Your task to perform on an android device: Add "razer blade" to the cart on target.com Image 0: 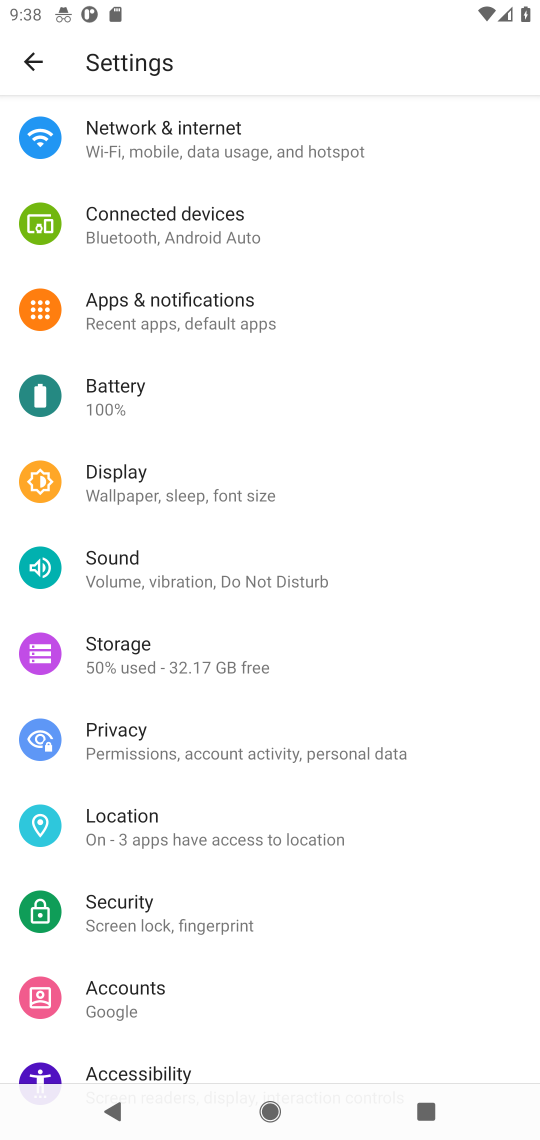
Step 0: press home button
Your task to perform on an android device: Add "razer blade" to the cart on target.com Image 1: 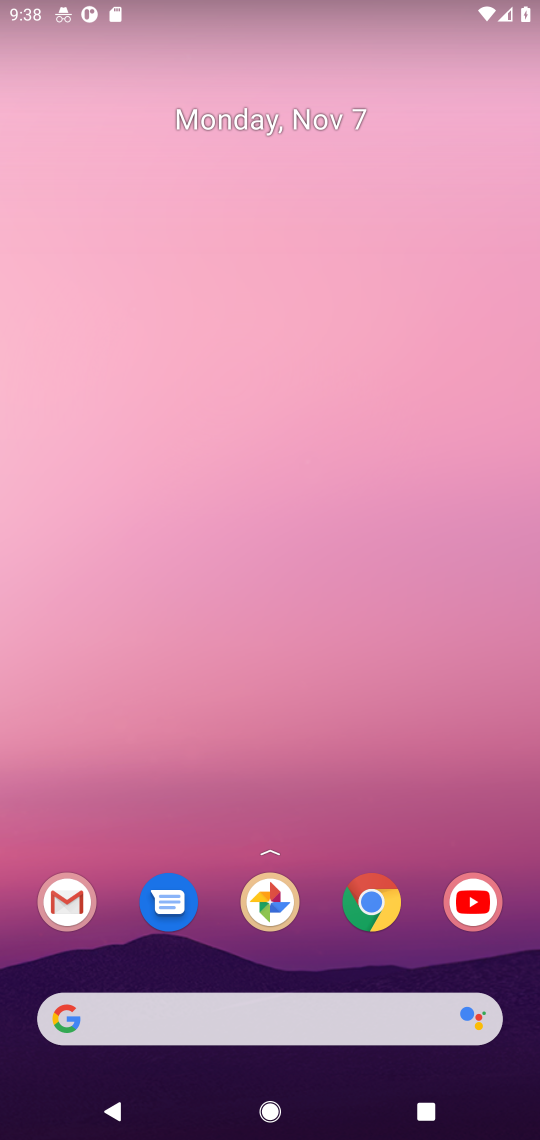
Step 1: click (385, 901)
Your task to perform on an android device: Add "razer blade" to the cart on target.com Image 2: 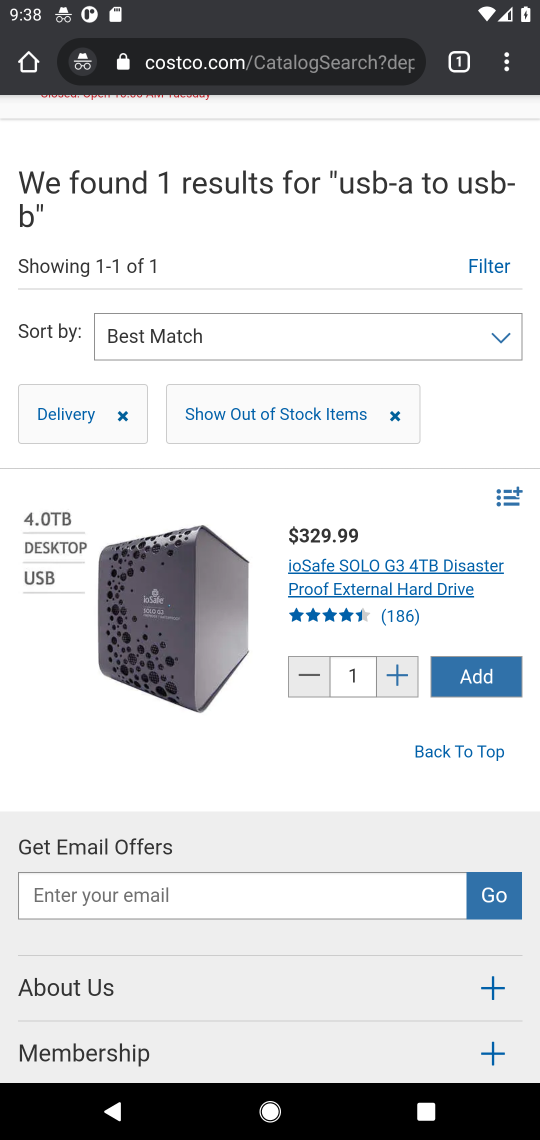
Step 2: click (284, 62)
Your task to perform on an android device: Add "razer blade" to the cart on target.com Image 3: 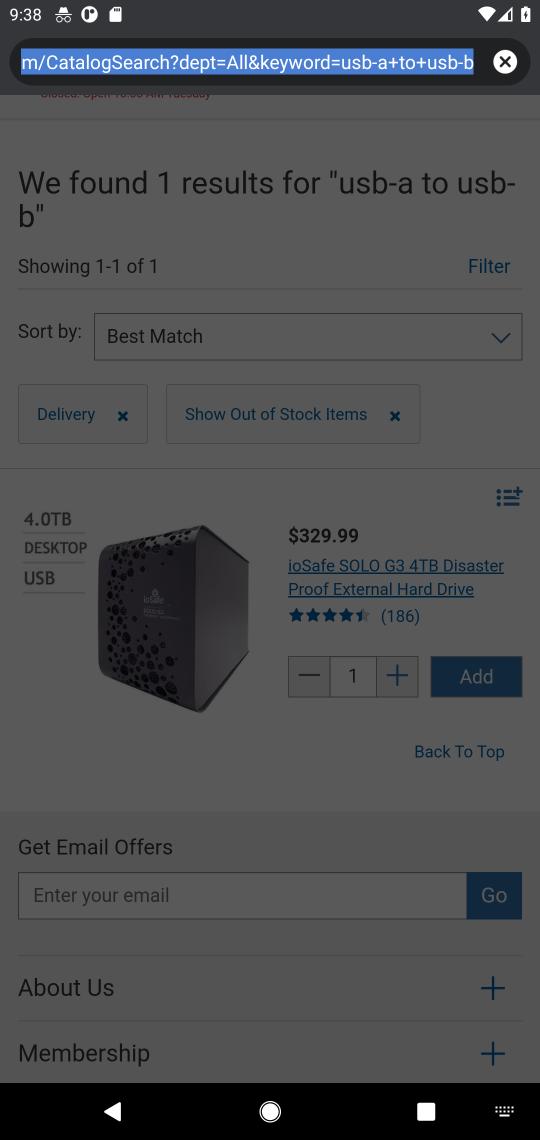
Step 3: click (502, 62)
Your task to perform on an android device: Add "razer blade" to the cart on target.com Image 4: 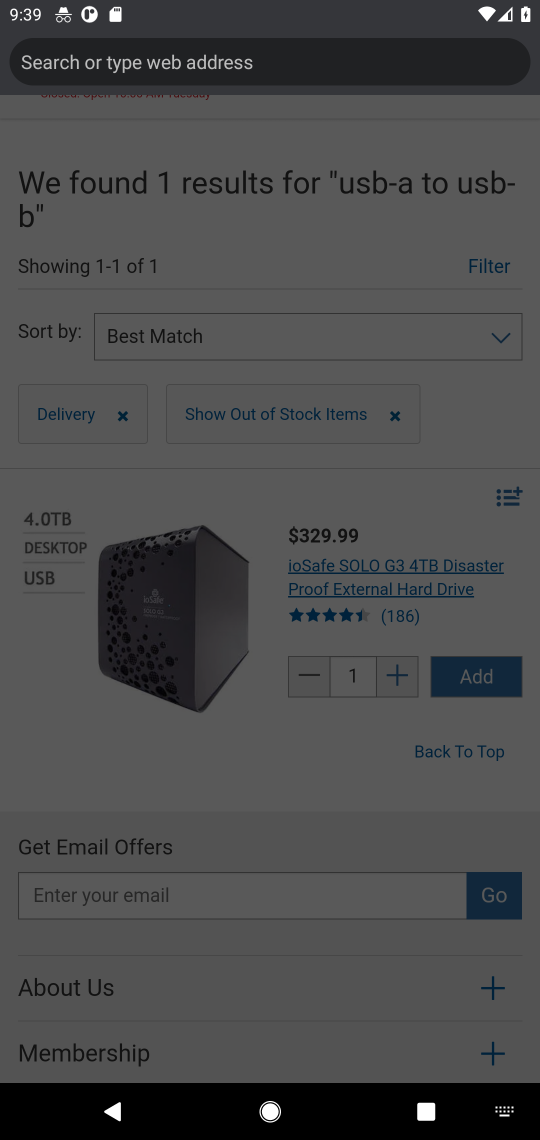
Step 4: type "target.com"
Your task to perform on an android device: Add "razer blade" to the cart on target.com Image 5: 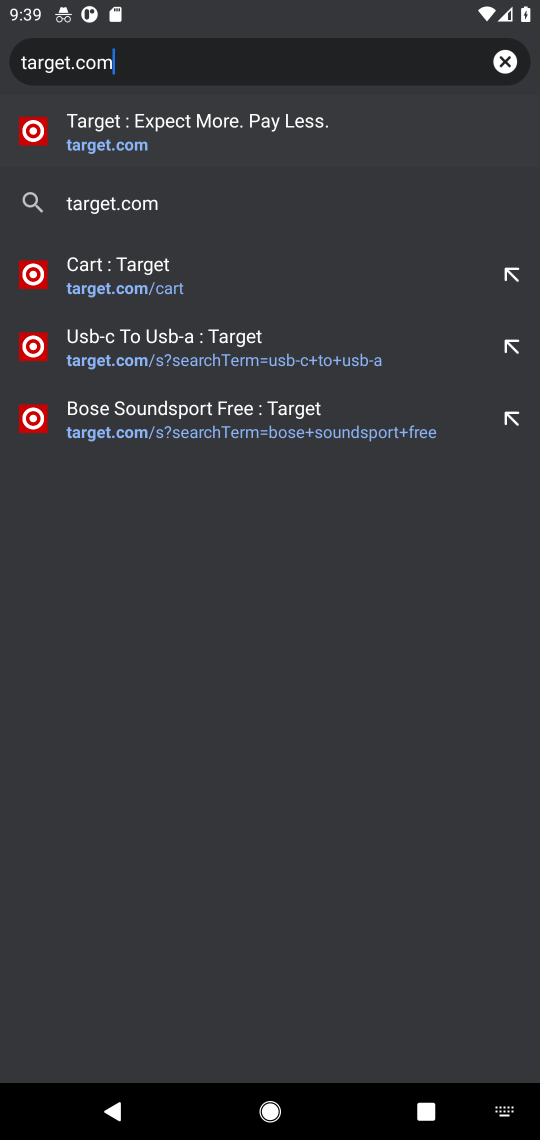
Step 5: click (91, 140)
Your task to perform on an android device: Add "razer blade" to the cart on target.com Image 6: 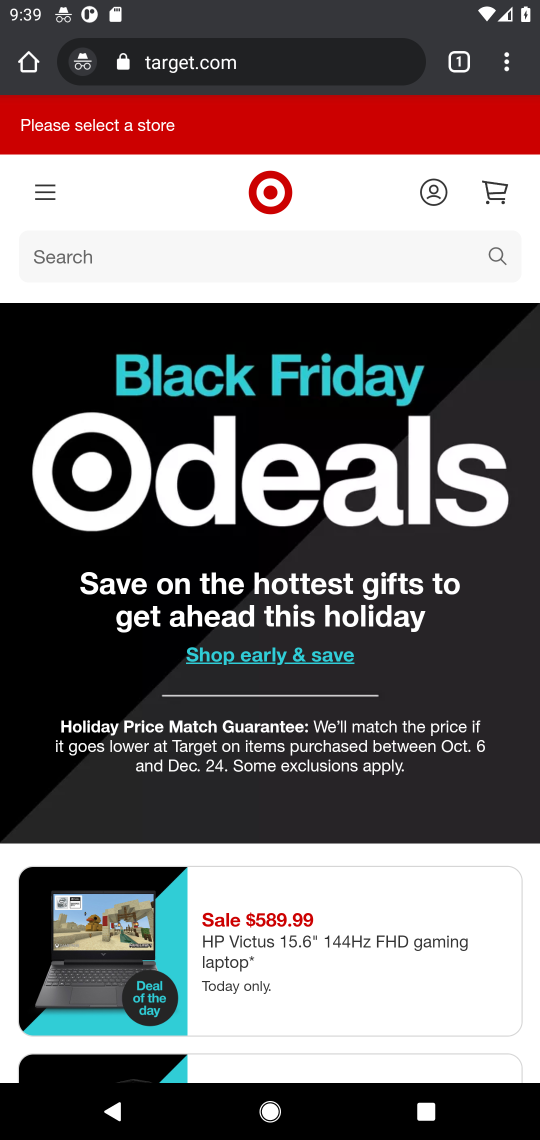
Step 6: click (502, 257)
Your task to perform on an android device: Add "razer blade" to the cart on target.com Image 7: 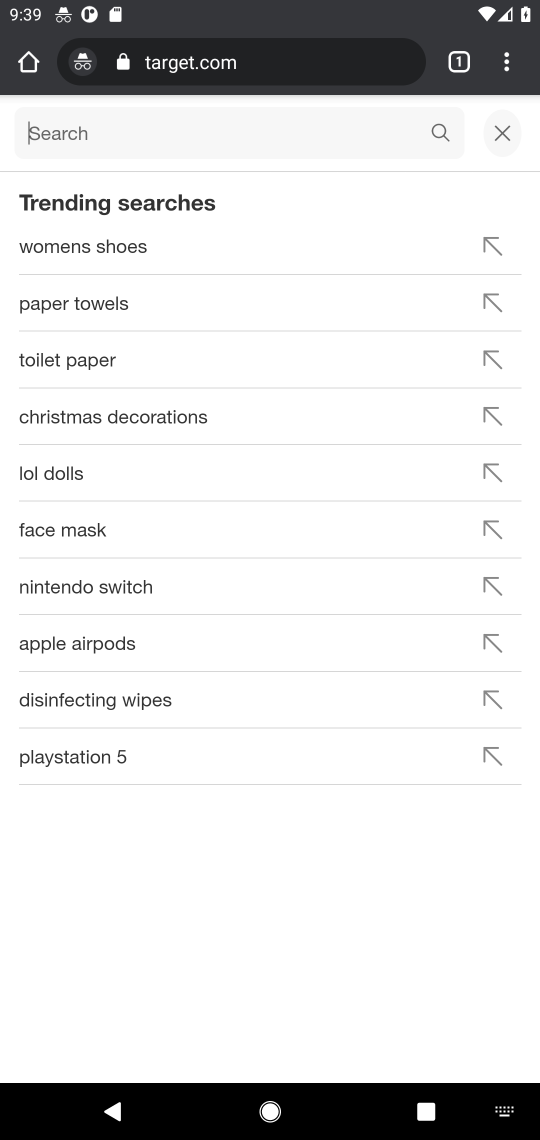
Step 7: type "razer blade"
Your task to perform on an android device: Add "razer blade" to the cart on target.com Image 8: 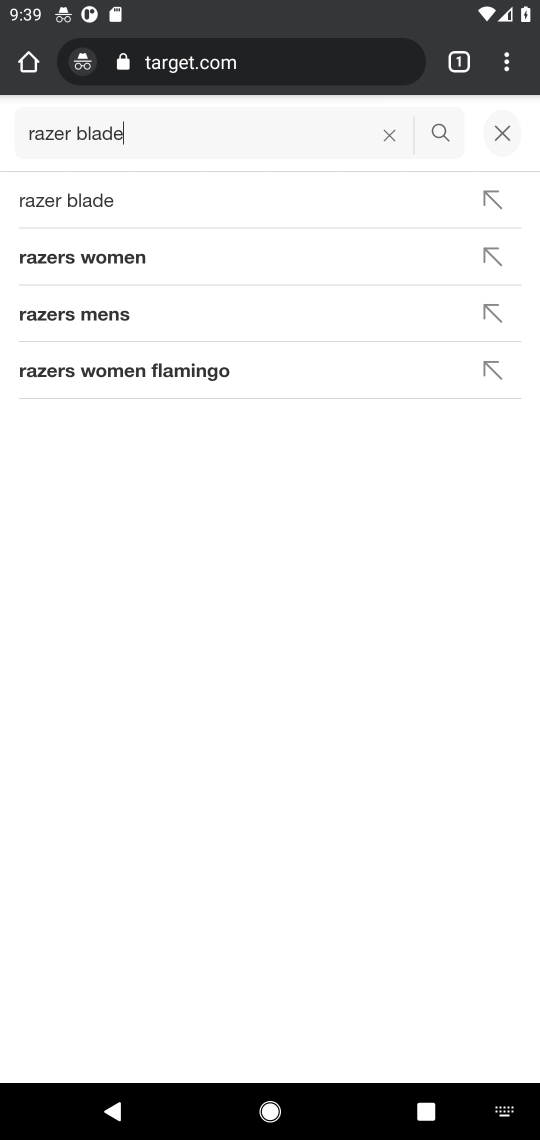
Step 8: click (101, 204)
Your task to perform on an android device: Add "razer blade" to the cart on target.com Image 9: 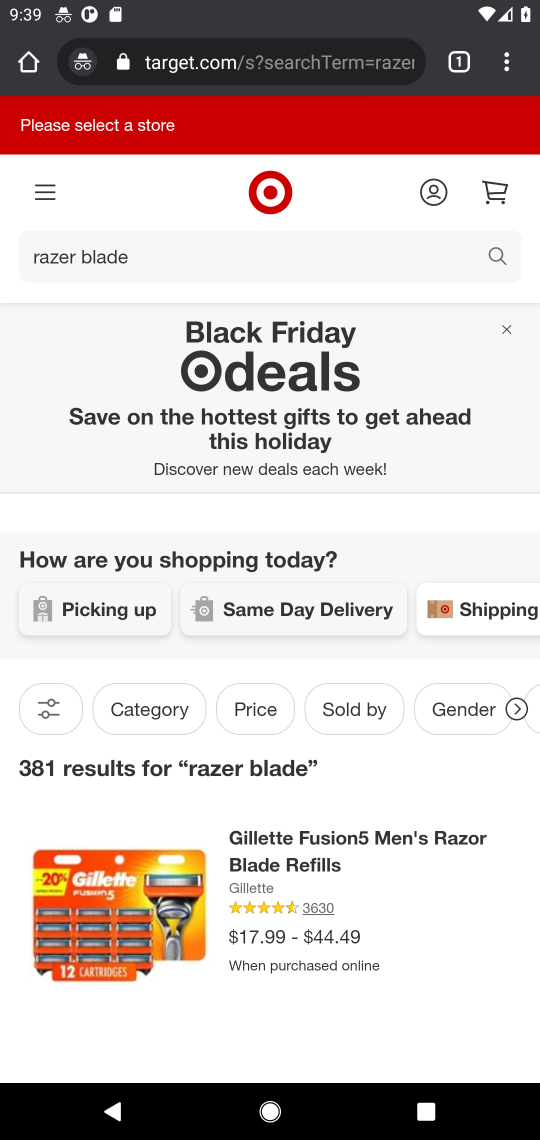
Step 9: click (134, 935)
Your task to perform on an android device: Add "razer blade" to the cart on target.com Image 10: 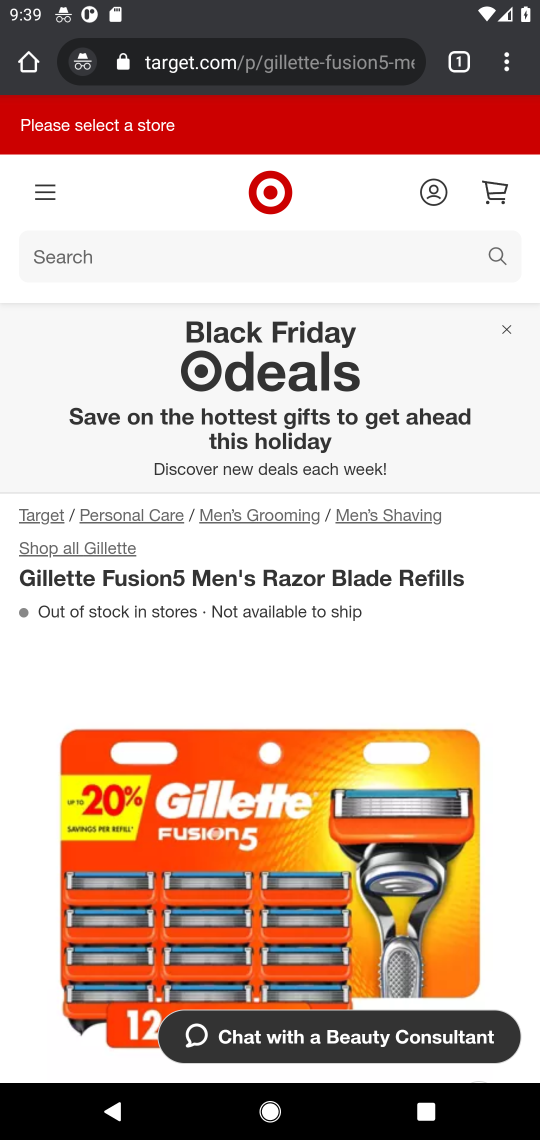
Step 10: drag from (234, 918) to (253, 435)
Your task to perform on an android device: Add "razer blade" to the cart on target.com Image 11: 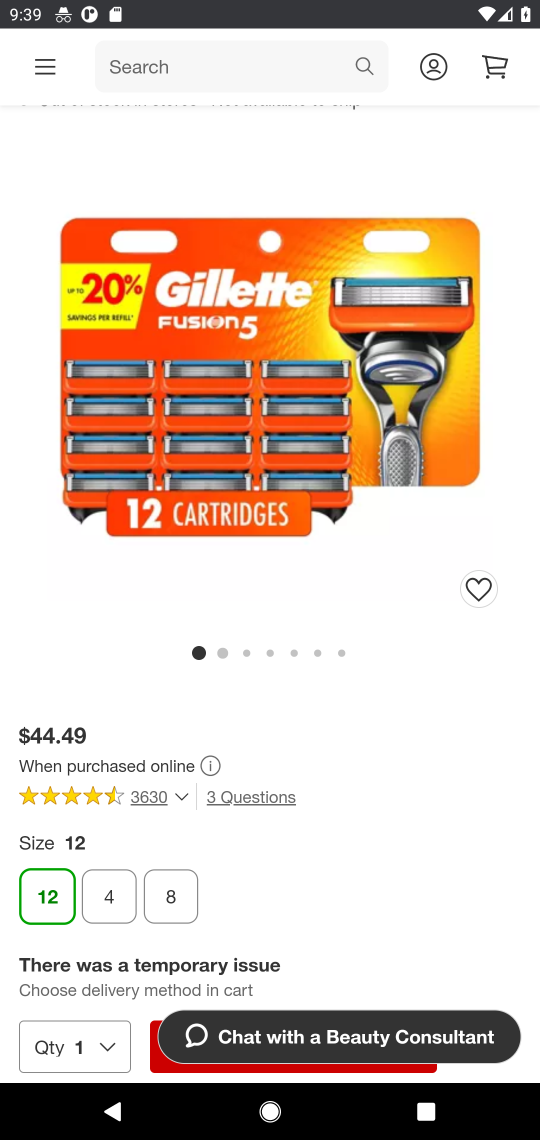
Step 11: drag from (268, 753) to (275, 478)
Your task to perform on an android device: Add "razer blade" to the cart on target.com Image 12: 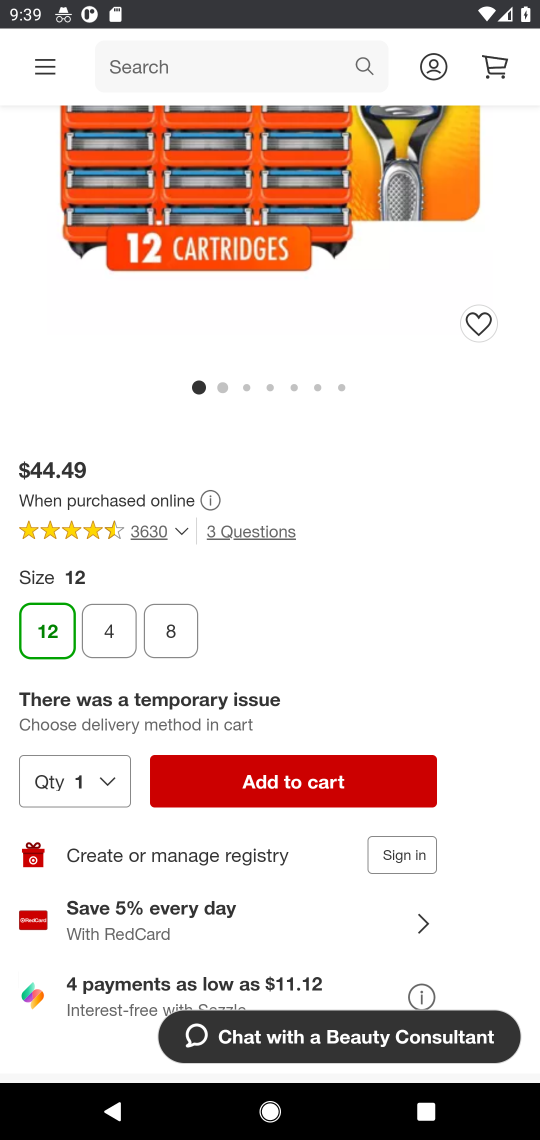
Step 12: click (254, 774)
Your task to perform on an android device: Add "razer blade" to the cart on target.com Image 13: 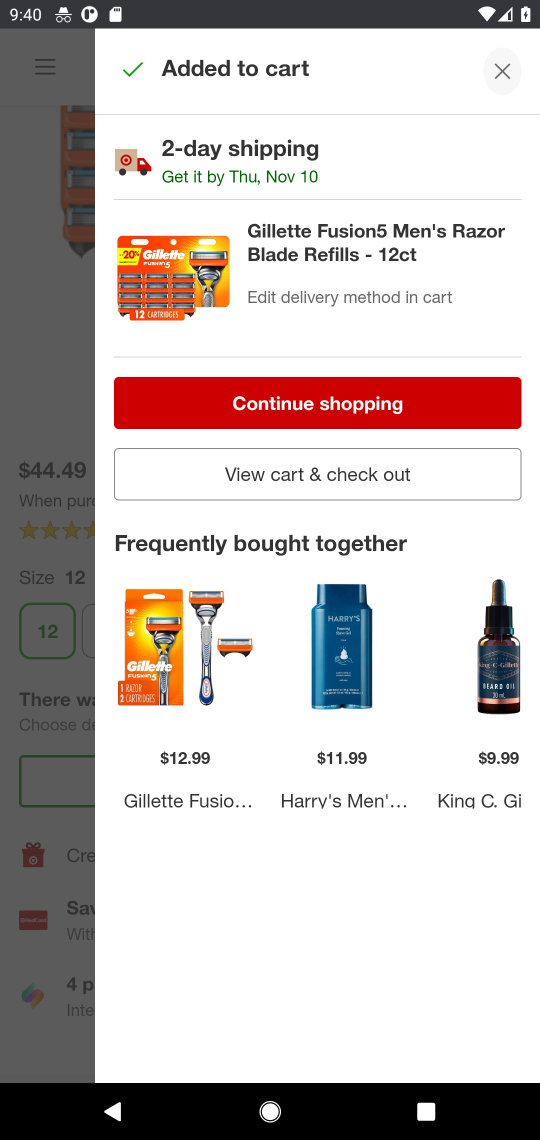
Step 13: task complete